Your task to perform on an android device: Add logitech g933 to the cart on walmart.com, then select checkout. Image 0: 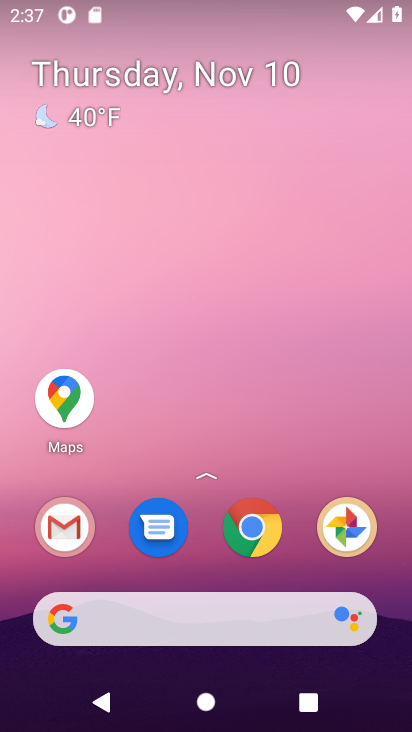
Step 0: drag from (197, 563) to (257, 99)
Your task to perform on an android device: Add logitech g933 to the cart on walmart.com, then select checkout. Image 1: 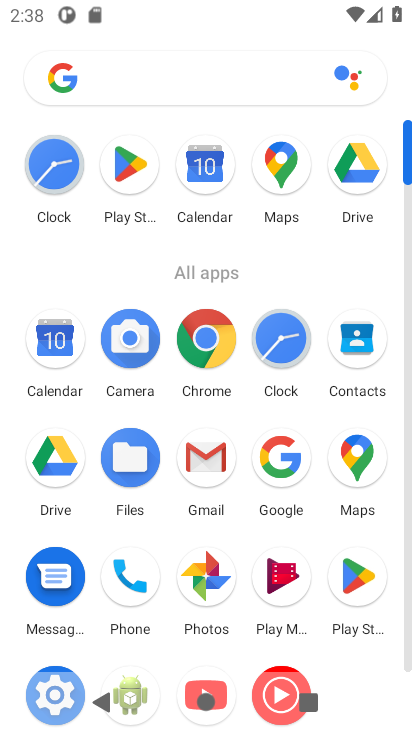
Step 1: click (220, 355)
Your task to perform on an android device: Add logitech g933 to the cart on walmart.com, then select checkout. Image 2: 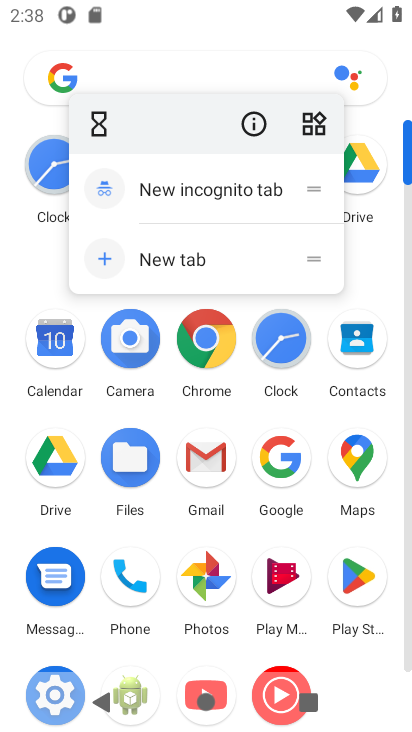
Step 2: click (218, 352)
Your task to perform on an android device: Add logitech g933 to the cart on walmart.com, then select checkout. Image 3: 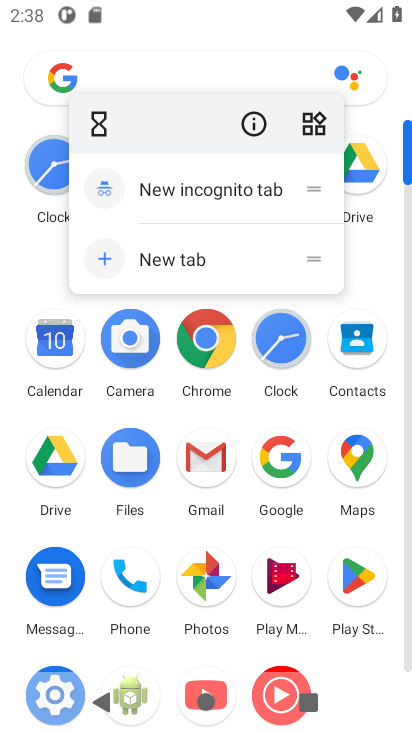
Step 3: click (215, 351)
Your task to perform on an android device: Add logitech g933 to the cart on walmart.com, then select checkout. Image 4: 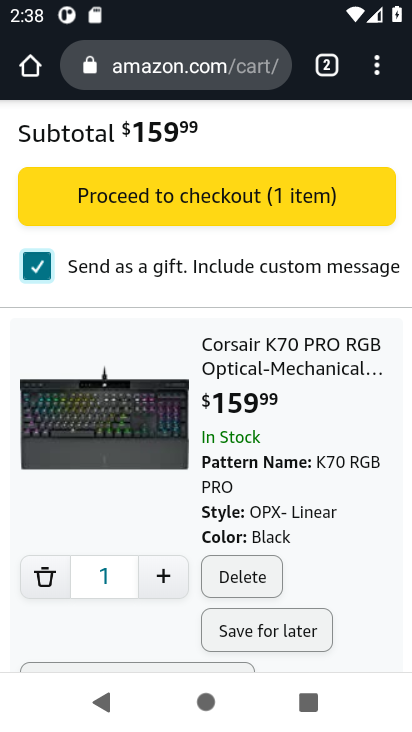
Step 4: click (133, 59)
Your task to perform on an android device: Add logitech g933 to the cart on walmart.com, then select checkout. Image 5: 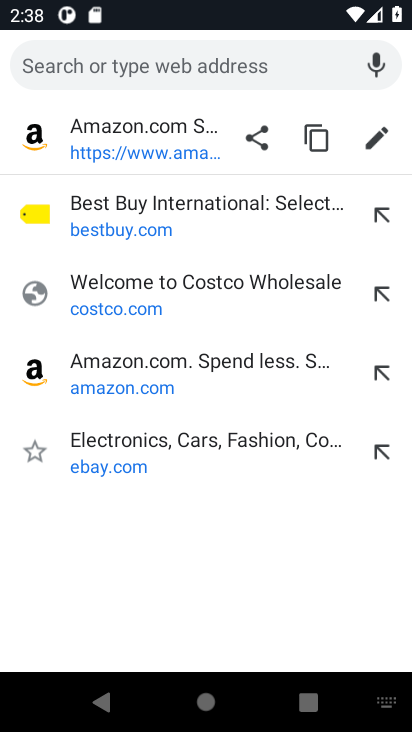
Step 5: type "walmart.com"
Your task to perform on an android device: Add logitech g933 to the cart on walmart.com, then select checkout. Image 6: 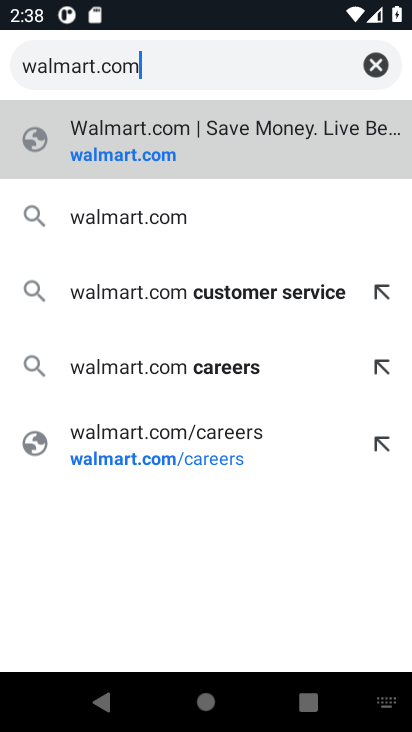
Step 6: press enter
Your task to perform on an android device: Add logitech g933 to the cart on walmart.com, then select checkout. Image 7: 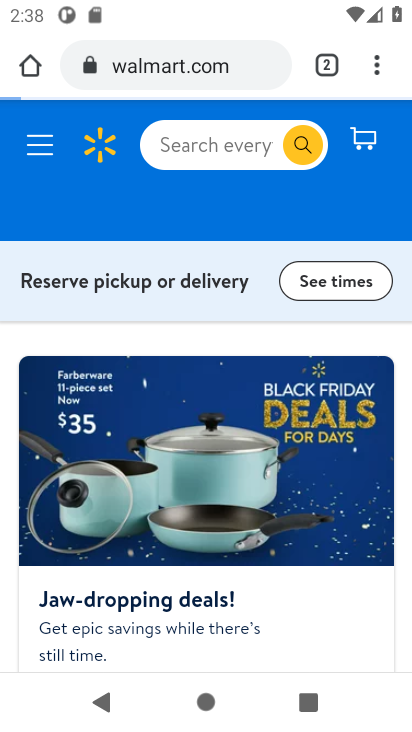
Step 7: drag from (228, 497) to (193, 223)
Your task to perform on an android device: Add logitech g933 to the cart on walmart.com, then select checkout. Image 8: 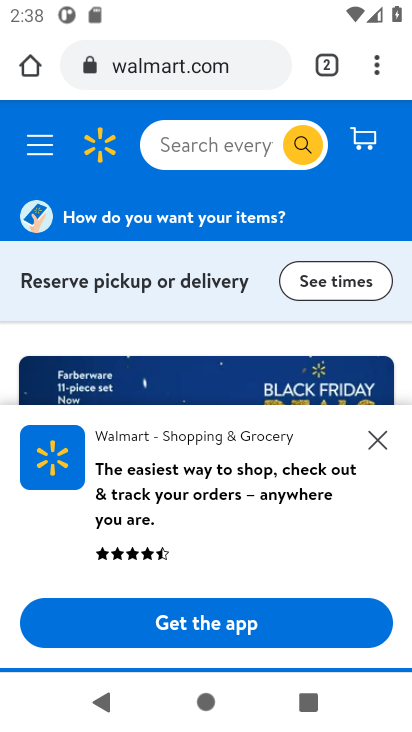
Step 8: drag from (215, 461) to (197, 229)
Your task to perform on an android device: Add logitech g933 to the cart on walmart.com, then select checkout. Image 9: 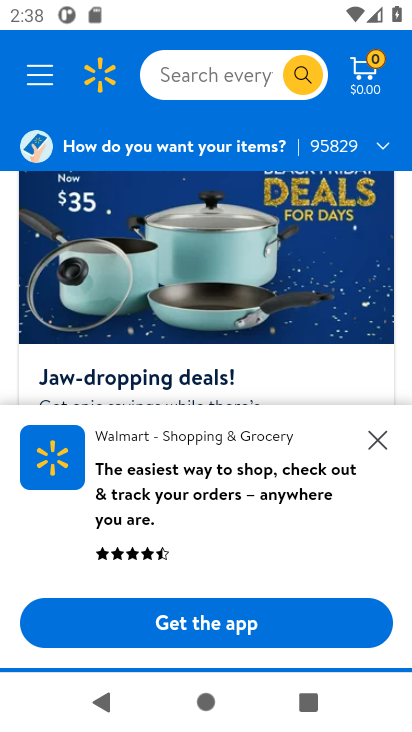
Step 9: click (381, 439)
Your task to perform on an android device: Add logitech g933 to the cart on walmart.com, then select checkout. Image 10: 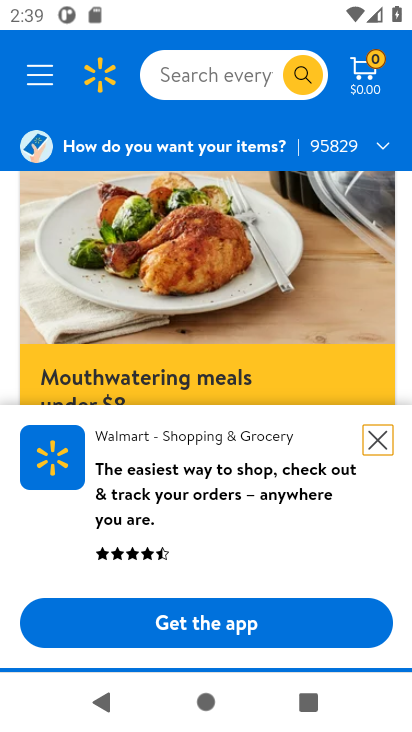
Step 10: click (383, 445)
Your task to perform on an android device: Add logitech g933 to the cart on walmart.com, then select checkout. Image 11: 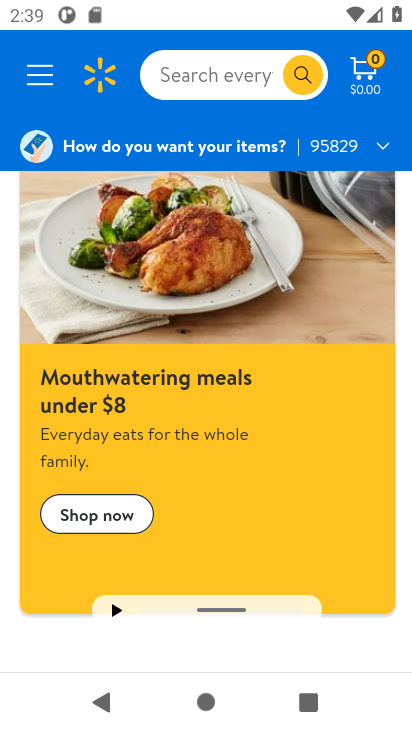
Step 11: drag from (225, 513) to (163, 227)
Your task to perform on an android device: Add logitech g933 to the cart on walmart.com, then select checkout. Image 12: 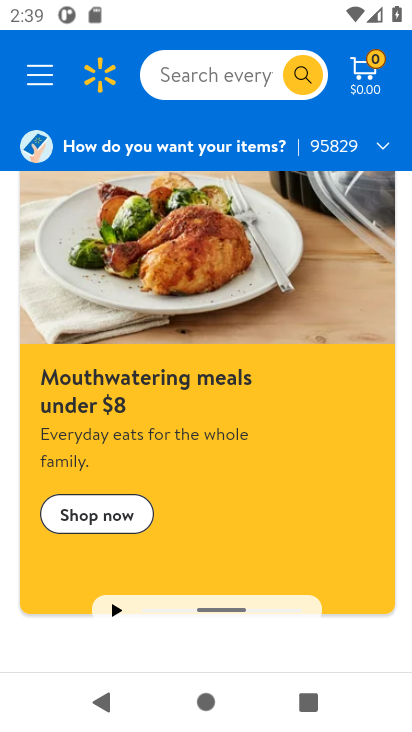
Step 12: drag from (161, 467) to (189, 85)
Your task to perform on an android device: Add logitech g933 to the cart on walmart.com, then select checkout. Image 13: 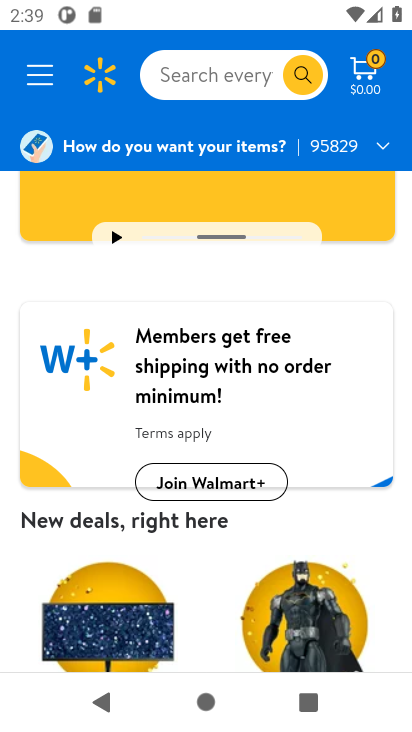
Step 13: drag from (186, 496) to (132, 209)
Your task to perform on an android device: Add logitech g933 to the cart on walmart.com, then select checkout. Image 14: 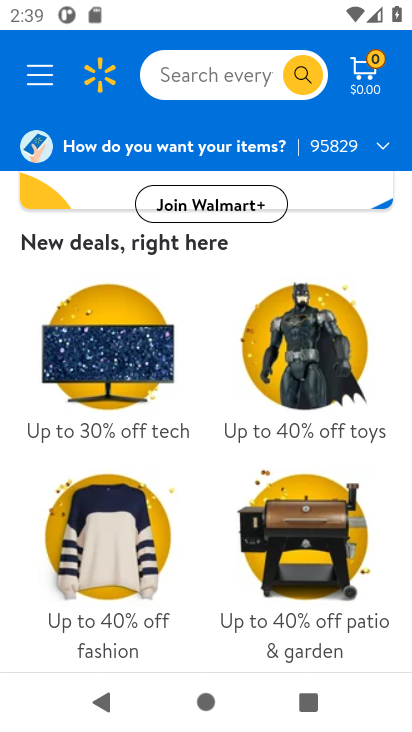
Step 14: drag from (174, 336) to (149, 731)
Your task to perform on an android device: Add logitech g933 to the cart on walmart.com, then select checkout. Image 15: 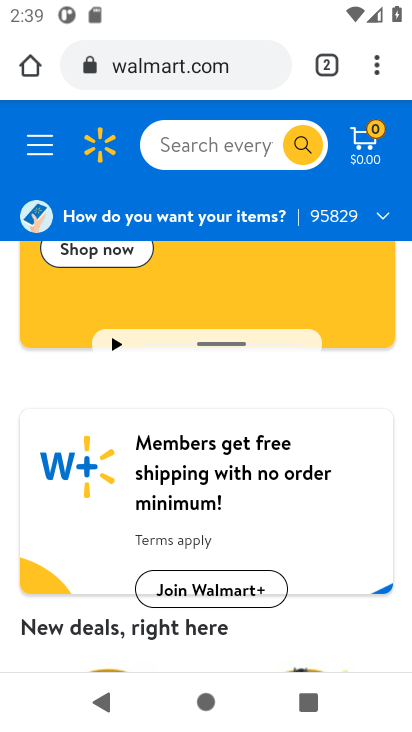
Step 15: drag from (159, 283) to (158, 684)
Your task to perform on an android device: Add logitech g933 to the cart on walmart.com, then select checkout. Image 16: 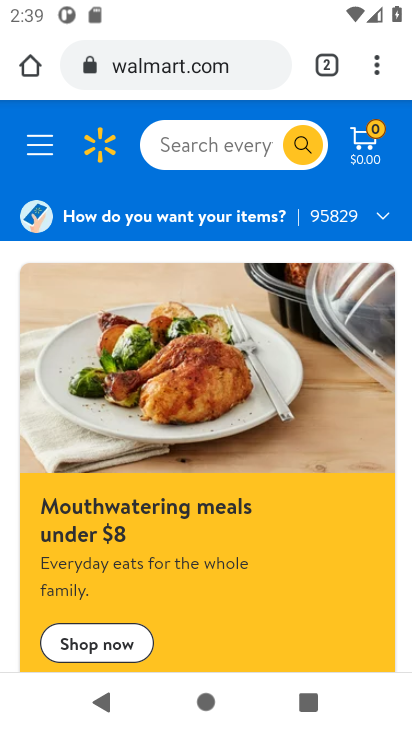
Step 16: drag from (183, 313) to (233, 525)
Your task to perform on an android device: Add logitech g933 to the cart on walmart.com, then select checkout. Image 17: 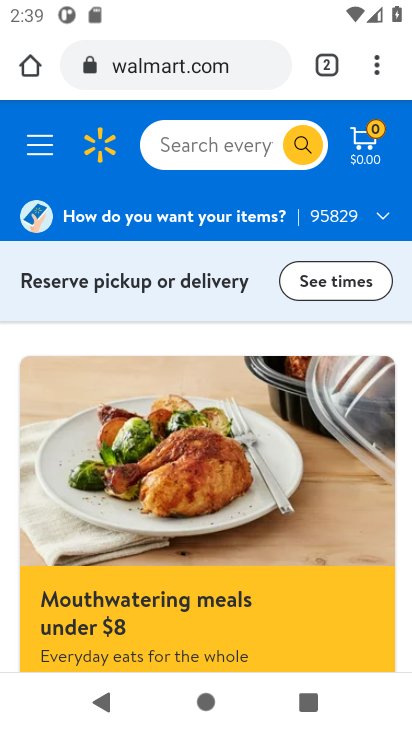
Step 17: drag from (212, 327) to (263, 588)
Your task to perform on an android device: Add logitech g933 to the cart on walmart.com, then select checkout. Image 18: 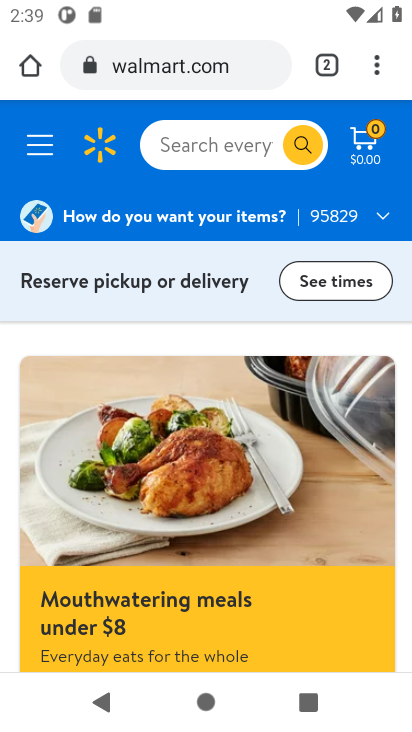
Step 18: drag from (234, 536) to (242, 263)
Your task to perform on an android device: Add logitech g933 to the cart on walmart.com, then select checkout. Image 19: 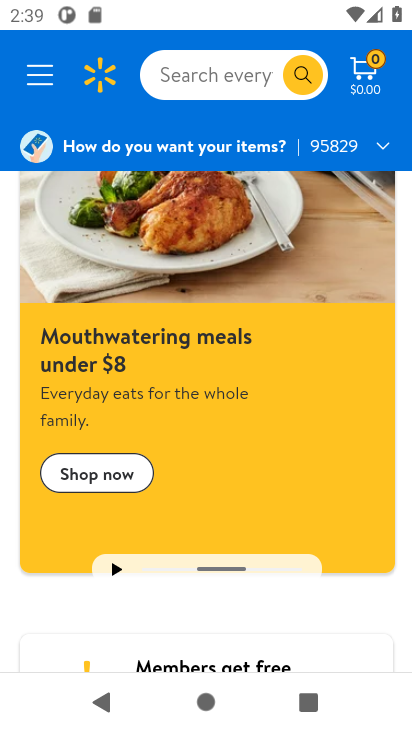
Step 19: drag from (279, 512) to (294, 277)
Your task to perform on an android device: Add logitech g933 to the cart on walmart.com, then select checkout. Image 20: 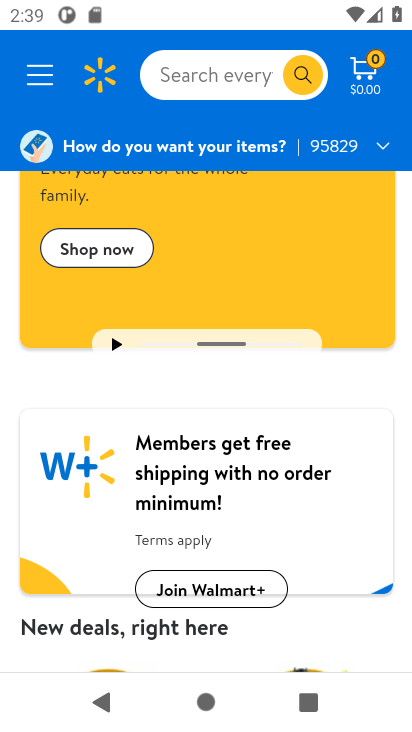
Step 20: drag from (244, 552) to (209, 221)
Your task to perform on an android device: Add logitech g933 to the cart on walmart.com, then select checkout. Image 21: 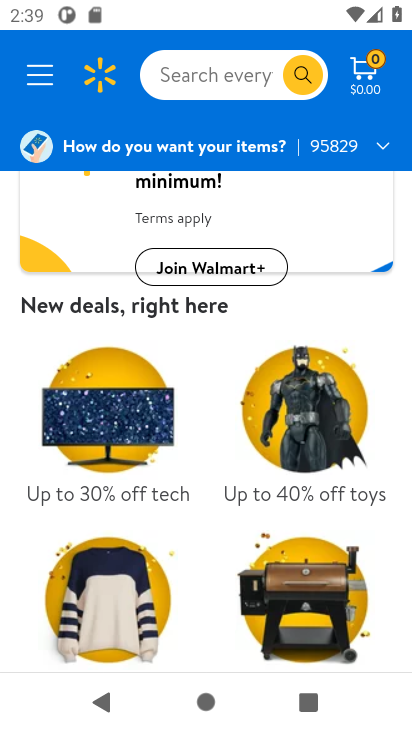
Step 21: drag from (268, 458) to (290, 169)
Your task to perform on an android device: Add logitech g933 to the cart on walmart.com, then select checkout. Image 22: 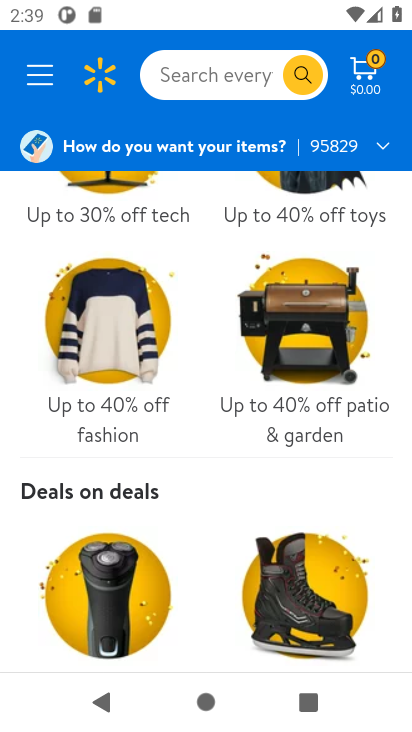
Step 22: drag from (234, 502) to (300, 120)
Your task to perform on an android device: Add logitech g933 to the cart on walmart.com, then select checkout. Image 23: 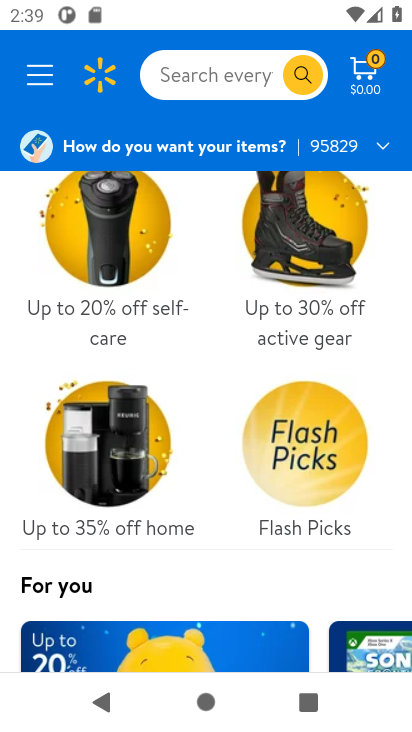
Step 23: click (237, 73)
Your task to perform on an android device: Add logitech g933 to the cart on walmart.com, then select checkout. Image 24: 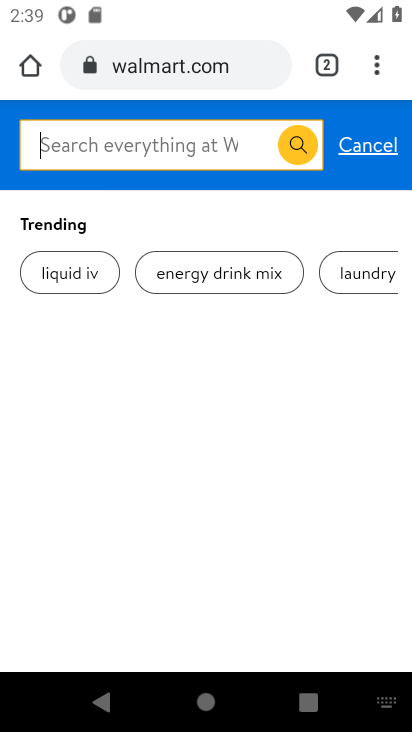
Step 24: type "logitech g933"
Your task to perform on an android device: Add logitech g933 to the cart on walmart.com, then select checkout. Image 25: 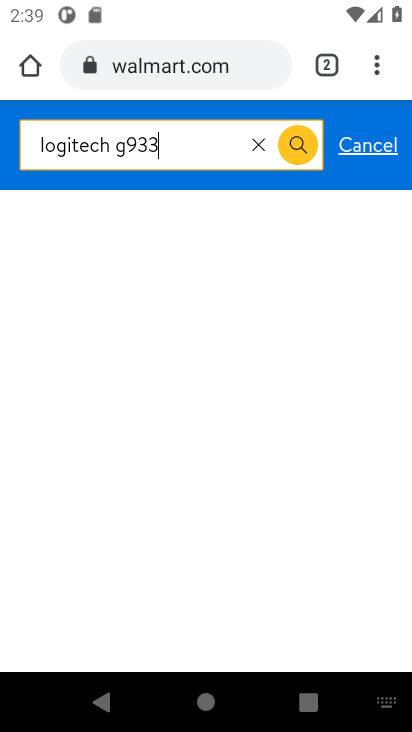
Step 25: press enter
Your task to perform on an android device: Add logitech g933 to the cart on walmart.com, then select checkout. Image 26: 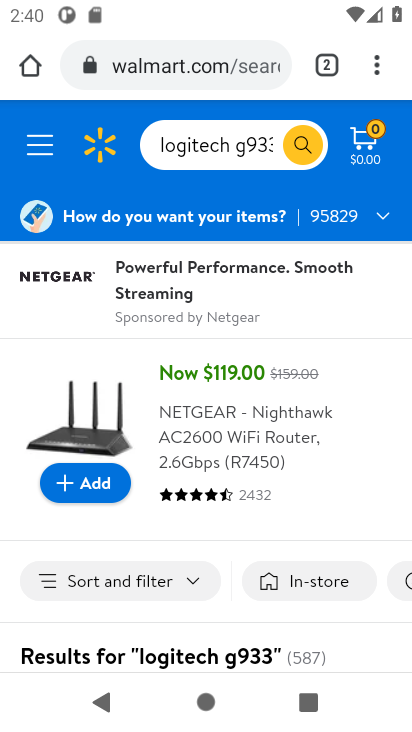
Step 26: drag from (185, 392) to (222, 242)
Your task to perform on an android device: Add logitech g933 to the cart on walmart.com, then select checkout. Image 27: 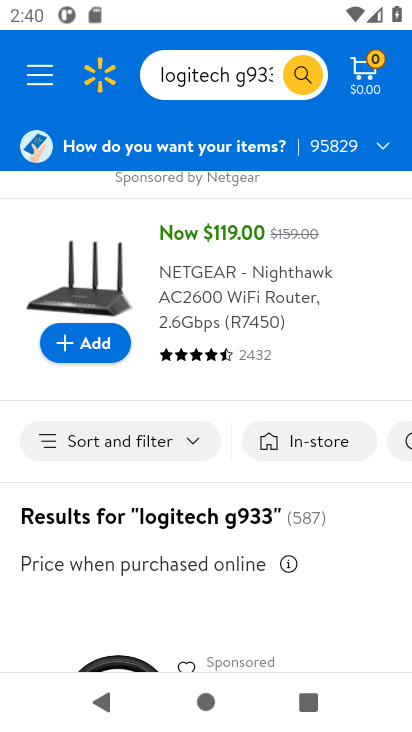
Step 27: drag from (247, 518) to (224, 302)
Your task to perform on an android device: Add logitech g933 to the cart on walmart.com, then select checkout. Image 28: 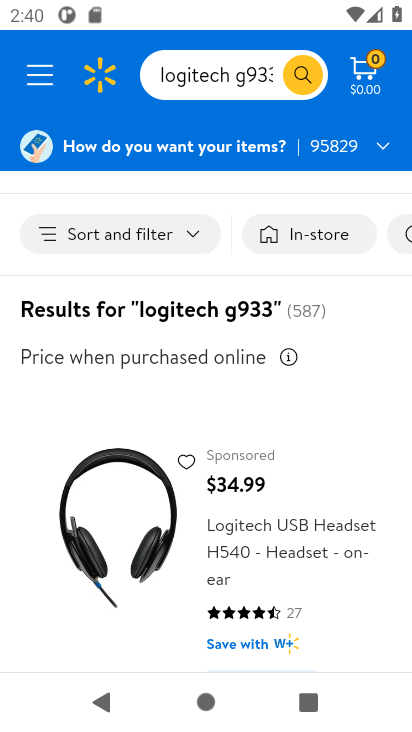
Step 28: drag from (280, 578) to (243, 404)
Your task to perform on an android device: Add logitech g933 to the cart on walmart.com, then select checkout. Image 29: 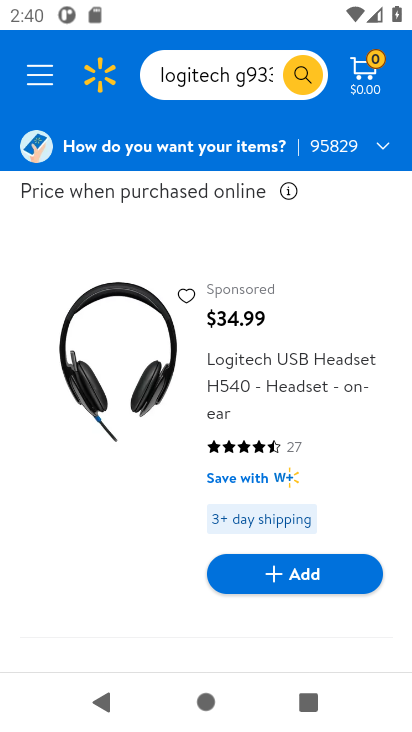
Step 29: click (358, 573)
Your task to perform on an android device: Add logitech g933 to the cart on walmart.com, then select checkout. Image 30: 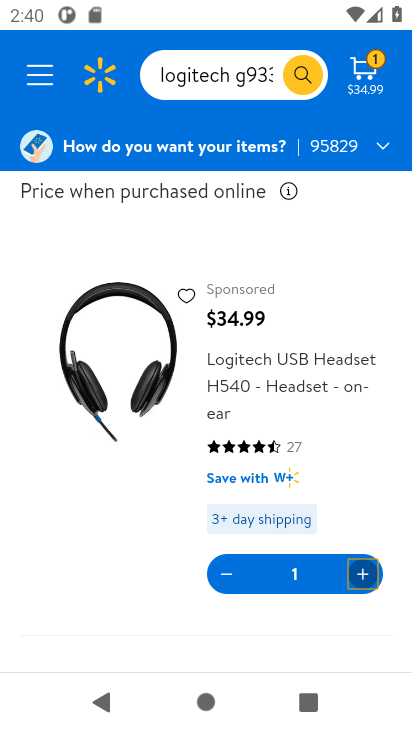
Step 30: click (375, 73)
Your task to perform on an android device: Add logitech g933 to the cart on walmart.com, then select checkout. Image 31: 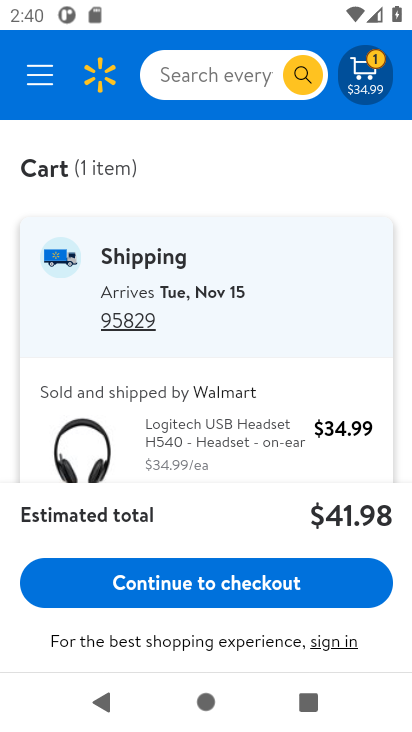
Step 31: click (272, 578)
Your task to perform on an android device: Add logitech g933 to the cart on walmart.com, then select checkout. Image 32: 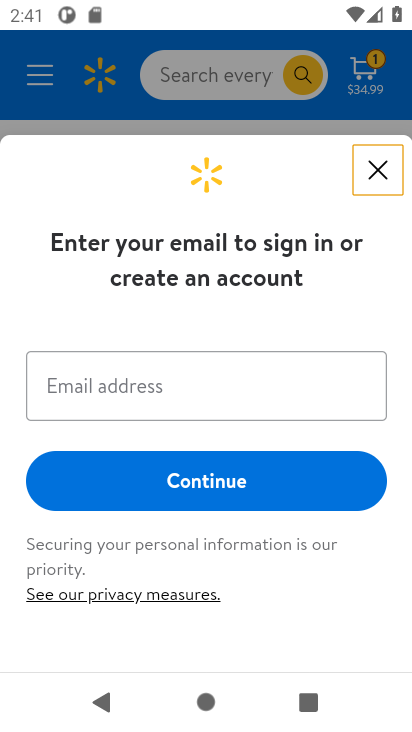
Step 32: click (372, 176)
Your task to perform on an android device: Add logitech g933 to the cart on walmart.com, then select checkout. Image 33: 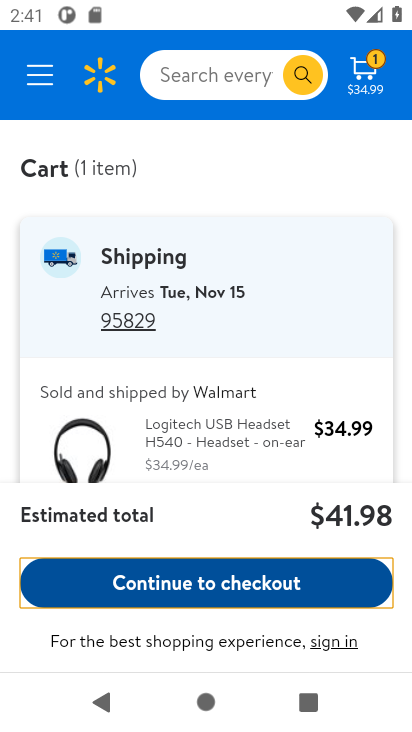
Step 33: click (302, 576)
Your task to perform on an android device: Add logitech g933 to the cart on walmart.com, then select checkout. Image 34: 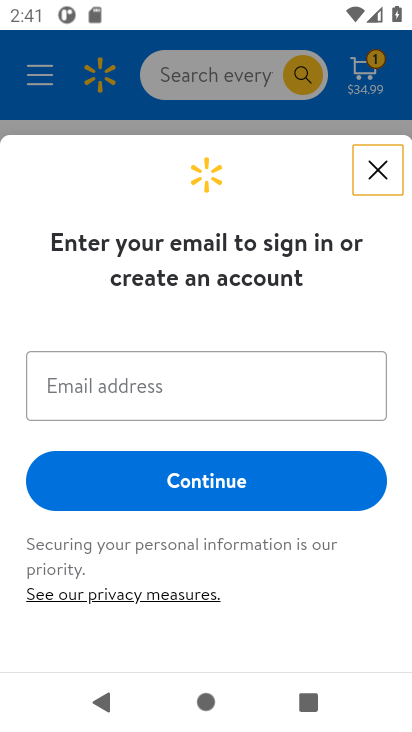
Step 34: task complete